Your task to perform on an android device: Open Google Image 0: 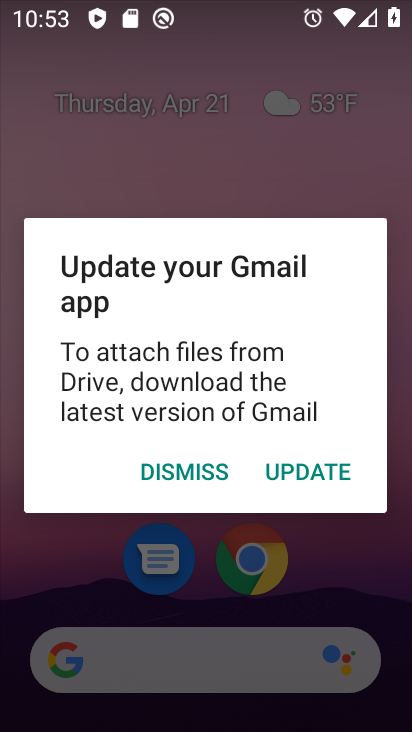
Step 0: press home button
Your task to perform on an android device: Open Google Image 1: 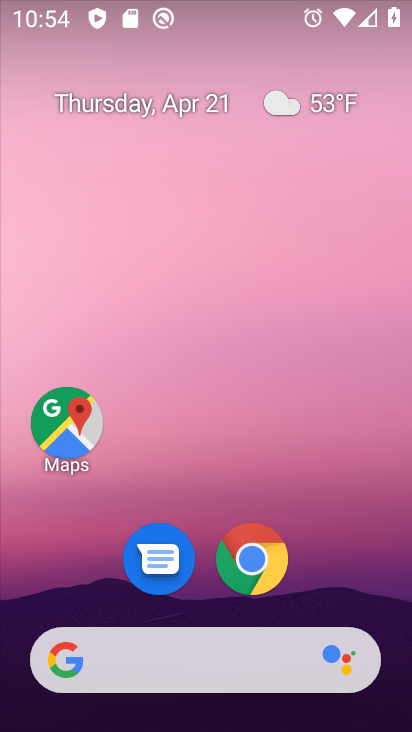
Step 1: drag from (305, 703) to (338, 104)
Your task to perform on an android device: Open Google Image 2: 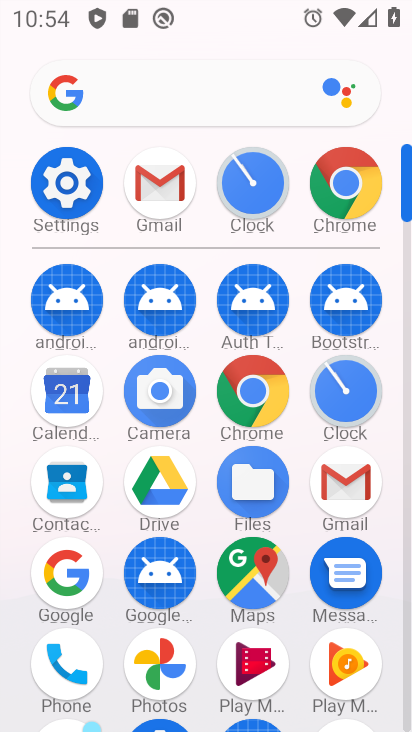
Step 2: click (351, 187)
Your task to perform on an android device: Open Google Image 3: 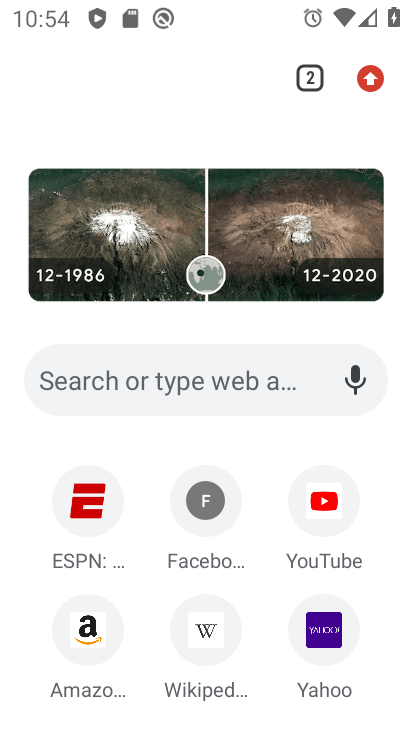
Step 3: click (152, 402)
Your task to perform on an android device: Open Google Image 4: 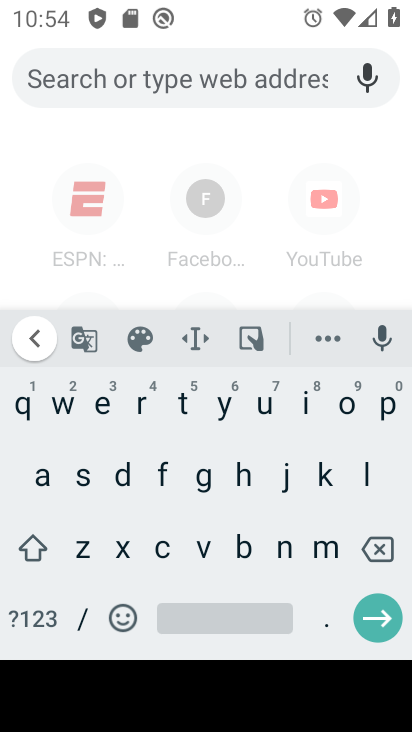
Step 4: click (211, 478)
Your task to perform on an android device: Open Google Image 5: 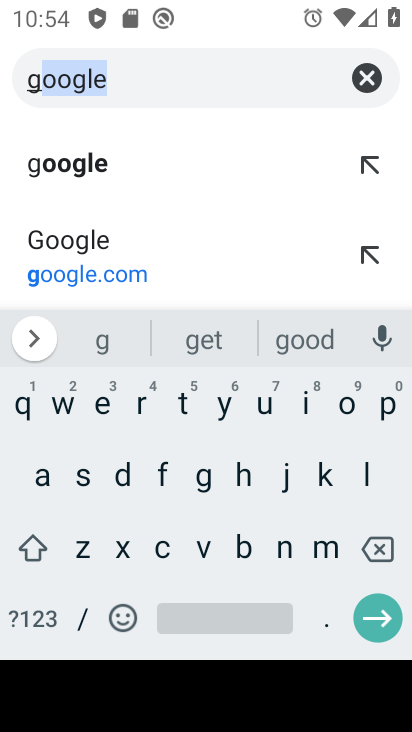
Step 5: click (131, 84)
Your task to perform on an android device: Open Google Image 6: 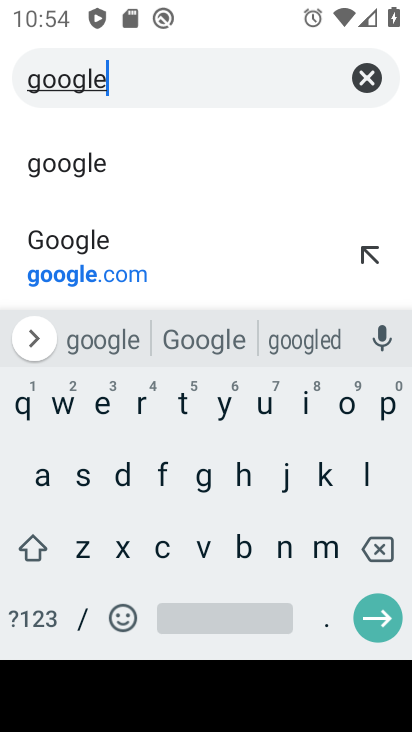
Step 6: click (378, 605)
Your task to perform on an android device: Open Google Image 7: 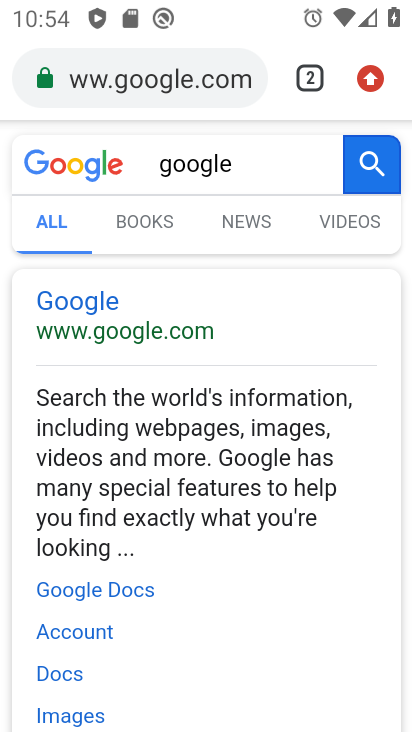
Step 7: click (104, 308)
Your task to perform on an android device: Open Google Image 8: 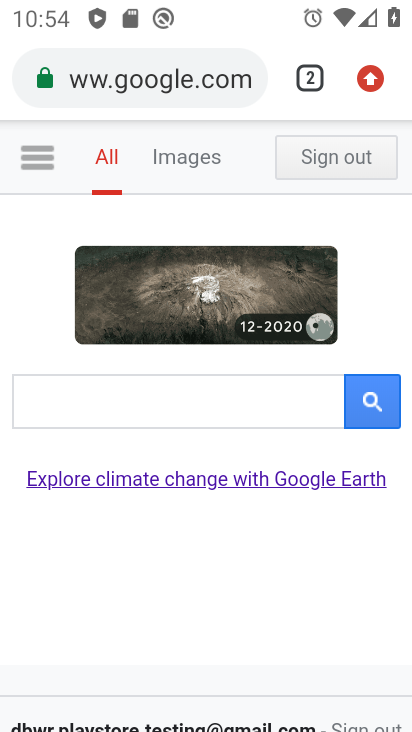
Step 8: task complete